Your task to perform on an android device: move an email to a new category in the gmail app Image 0: 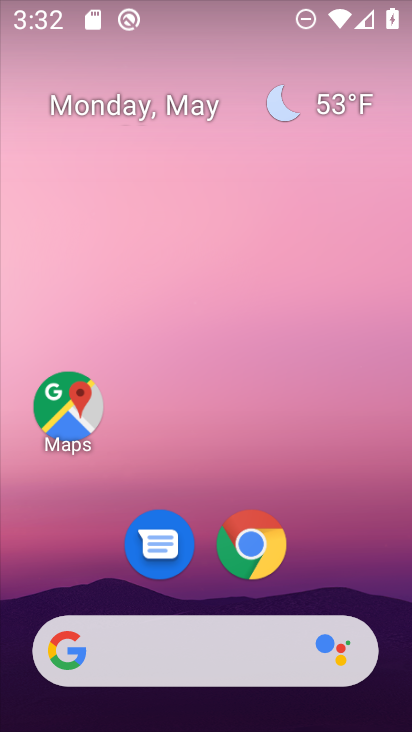
Step 0: drag from (120, 245) to (83, 26)
Your task to perform on an android device: move an email to a new category in the gmail app Image 1: 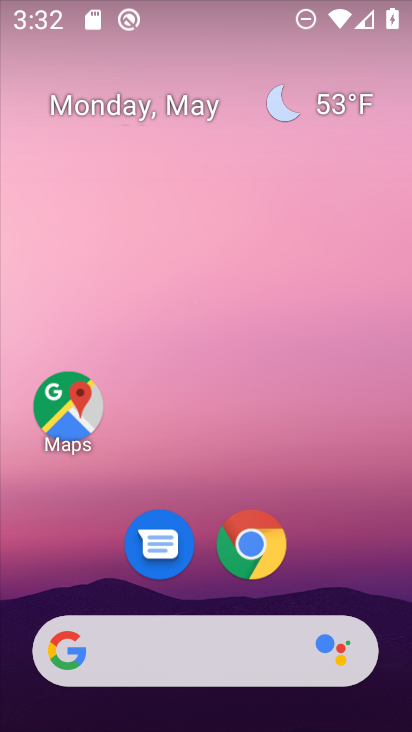
Step 1: drag from (120, 680) to (117, 20)
Your task to perform on an android device: move an email to a new category in the gmail app Image 2: 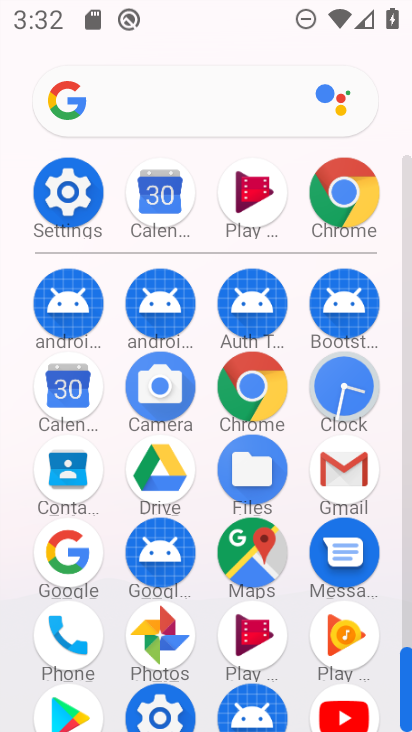
Step 2: click (348, 478)
Your task to perform on an android device: move an email to a new category in the gmail app Image 3: 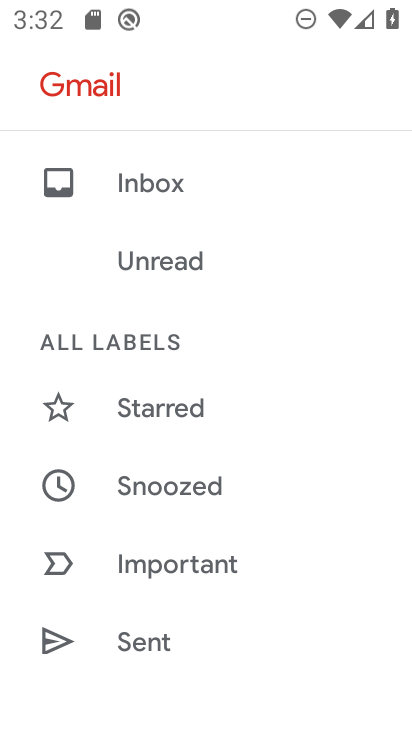
Step 3: click (168, 189)
Your task to perform on an android device: move an email to a new category in the gmail app Image 4: 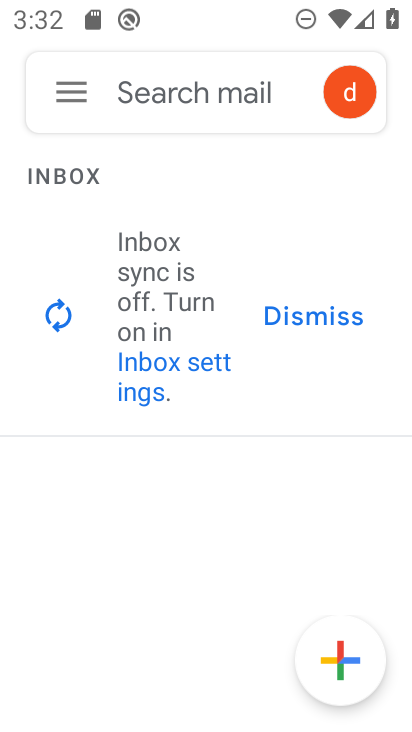
Step 4: click (71, 103)
Your task to perform on an android device: move an email to a new category in the gmail app Image 5: 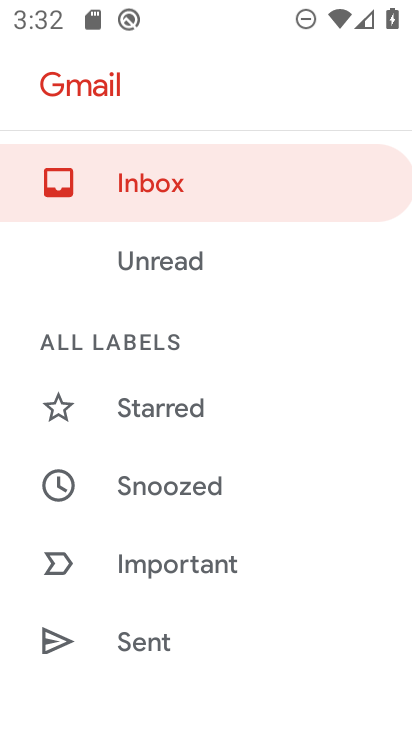
Step 5: drag from (217, 615) to (296, 192)
Your task to perform on an android device: move an email to a new category in the gmail app Image 6: 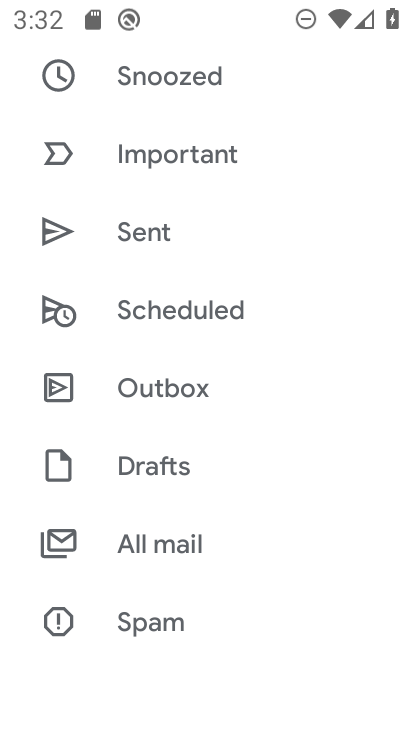
Step 6: click (188, 553)
Your task to perform on an android device: move an email to a new category in the gmail app Image 7: 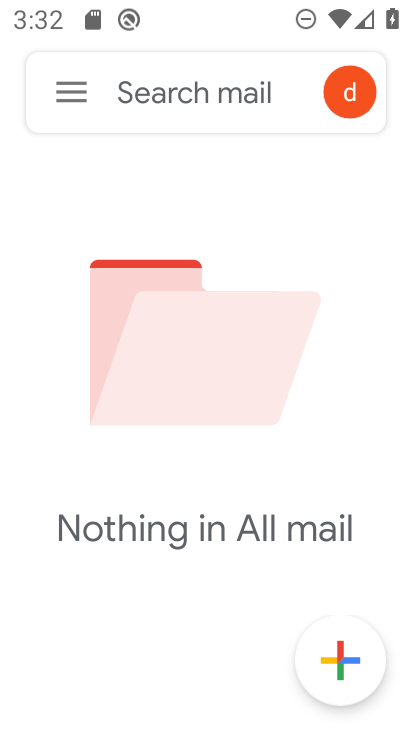
Step 7: task complete